Your task to perform on an android device: Open settings on Google Maps Image 0: 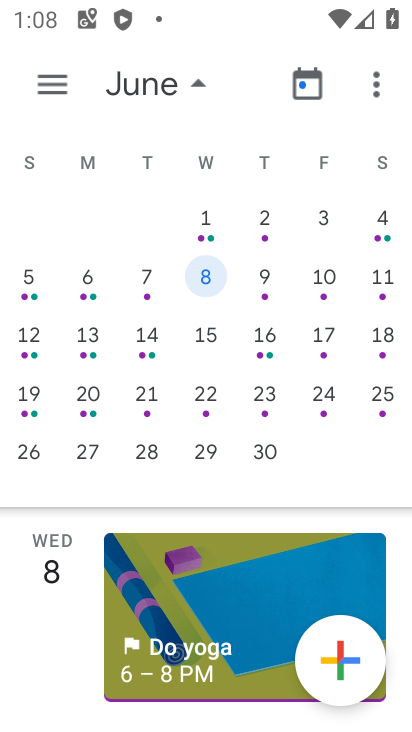
Step 0: press home button
Your task to perform on an android device: Open settings on Google Maps Image 1: 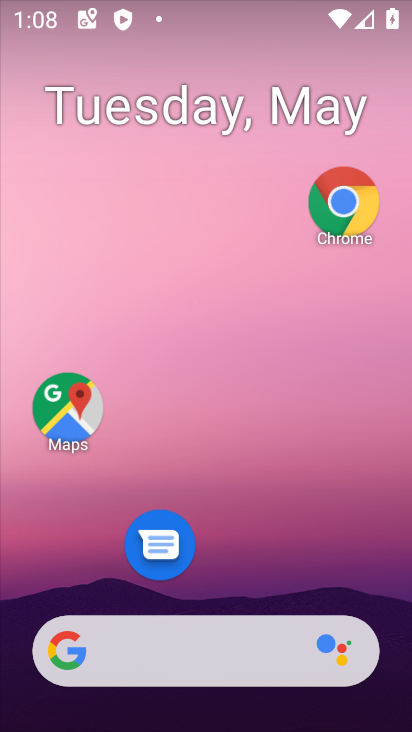
Step 1: click (85, 401)
Your task to perform on an android device: Open settings on Google Maps Image 2: 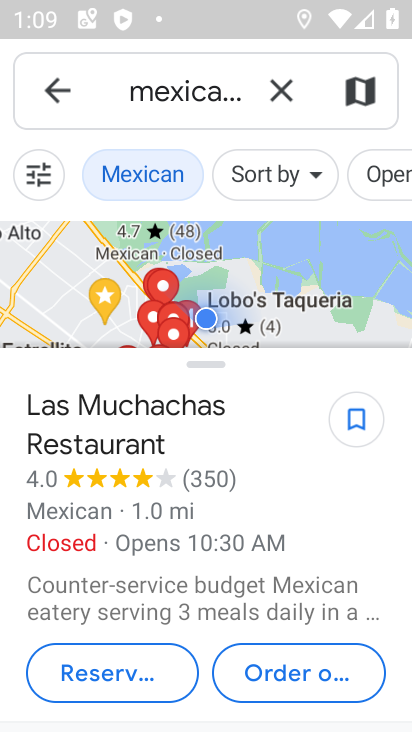
Step 2: task complete